Your task to perform on an android device: Open Chrome and go to the settings page Image 0: 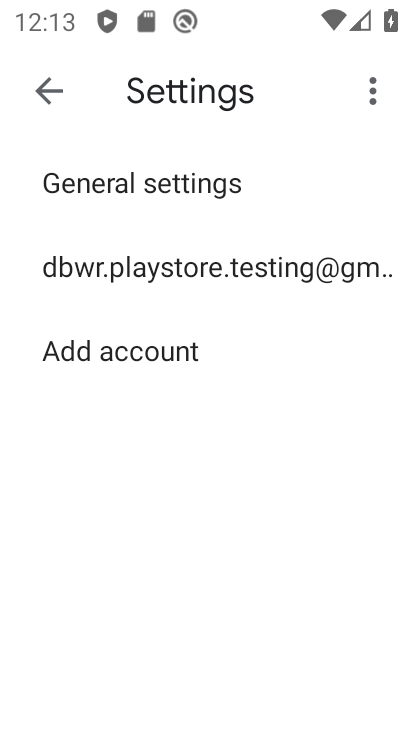
Step 0: press home button
Your task to perform on an android device: Open Chrome and go to the settings page Image 1: 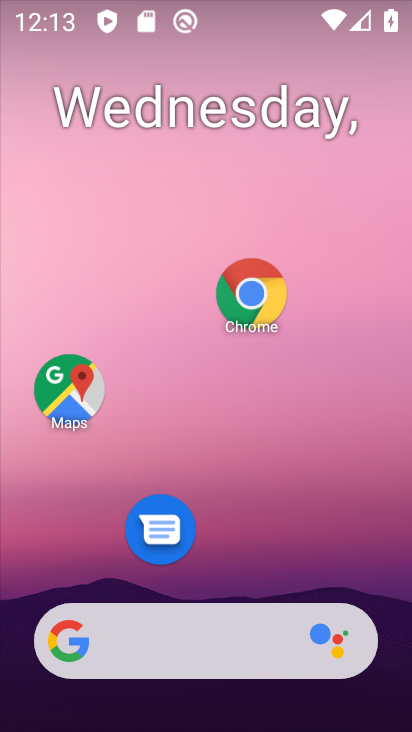
Step 1: click (274, 307)
Your task to perform on an android device: Open Chrome and go to the settings page Image 2: 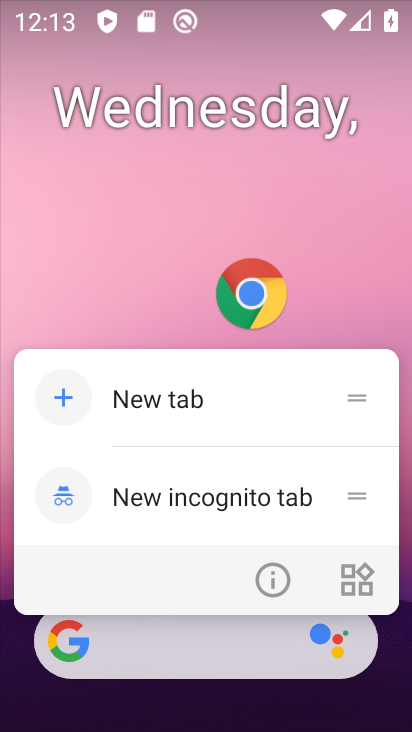
Step 2: click (250, 281)
Your task to perform on an android device: Open Chrome and go to the settings page Image 3: 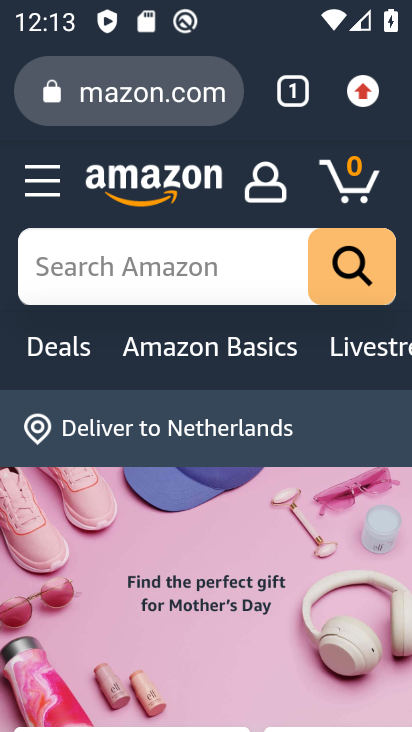
Step 3: click (378, 92)
Your task to perform on an android device: Open Chrome and go to the settings page Image 4: 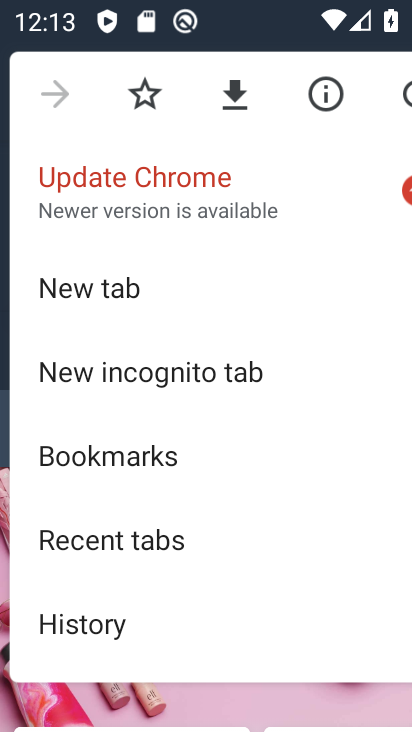
Step 4: drag from (256, 544) to (250, 281)
Your task to perform on an android device: Open Chrome and go to the settings page Image 5: 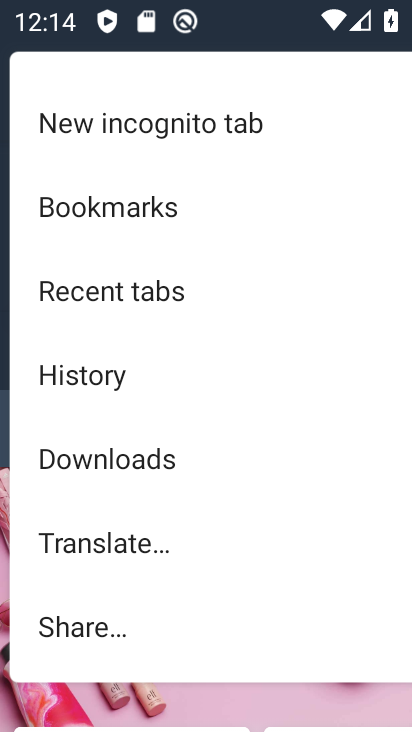
Step 5: drag from (258, 567) to (251, 290)
Your task to perform on an android device: Open Chrome and go to the settings page Image 6: 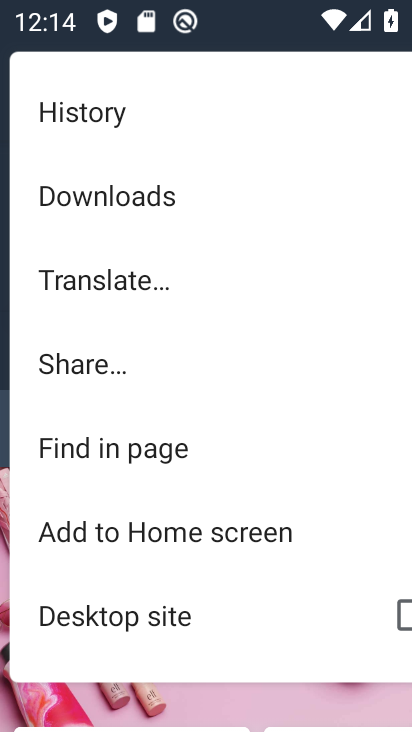
Step 6: drag from (229, 618) to (199, 416)
Your task to perform on an android device: Open Chrome and go to the settings page Image 7: 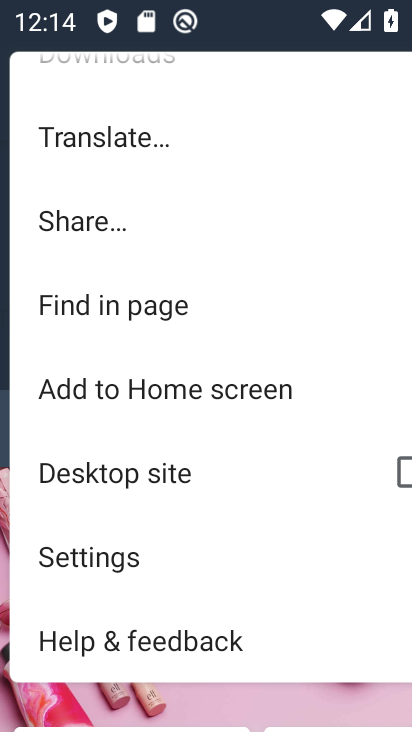
Step 7: click (207, 559)
Your task to perform on an android device: Open Chrome and go to the settings page Image 8: 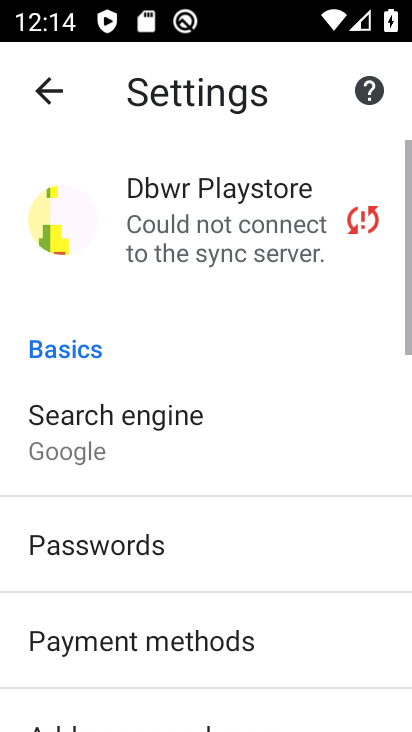
Step 8: task complete